Your task to perform on an android device: Add "lg ultragear" to the cart on costco.com, then select checkout. Image 0: 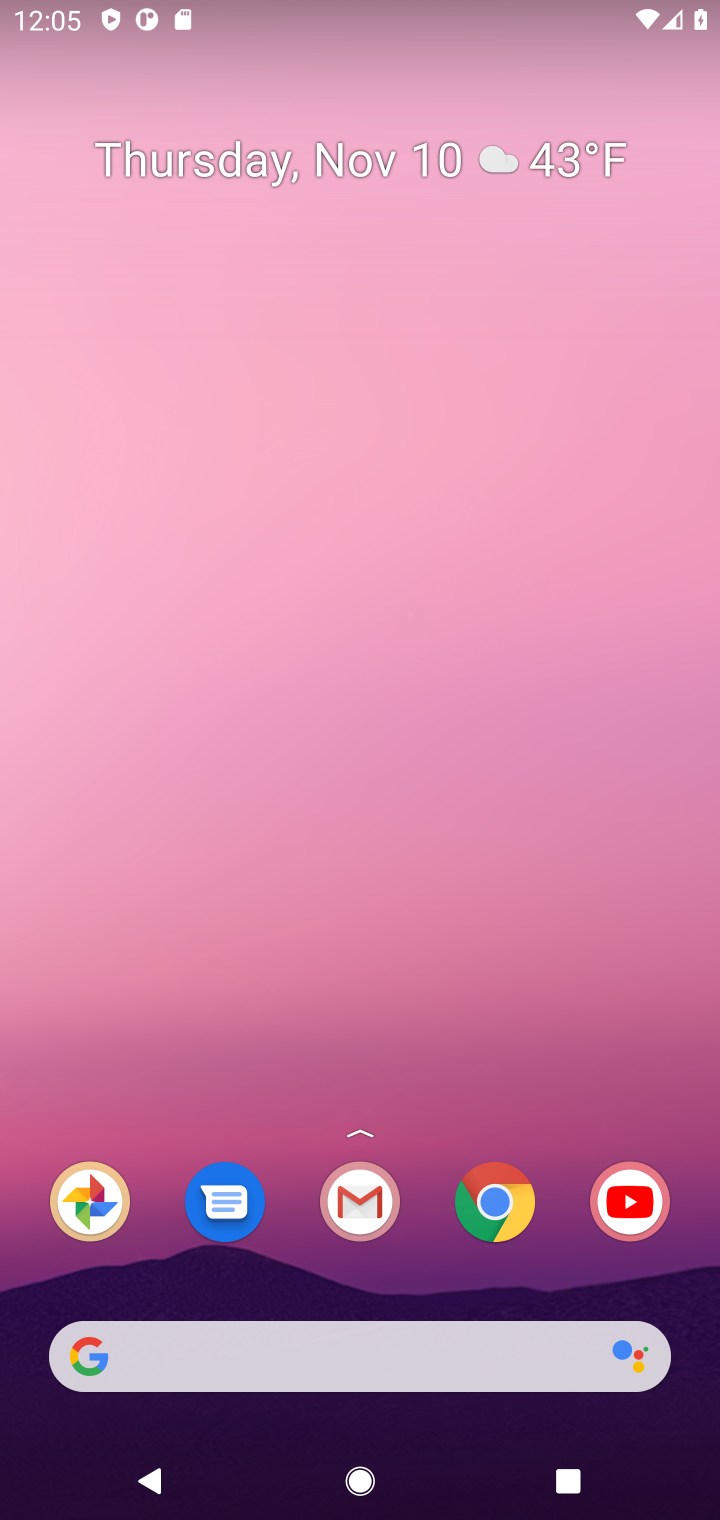
Step 0: click (505, 1211)
Your task to perform on an android device: Add "lg ultragear" to the cart on costco.com, then select checkout. Image 1: 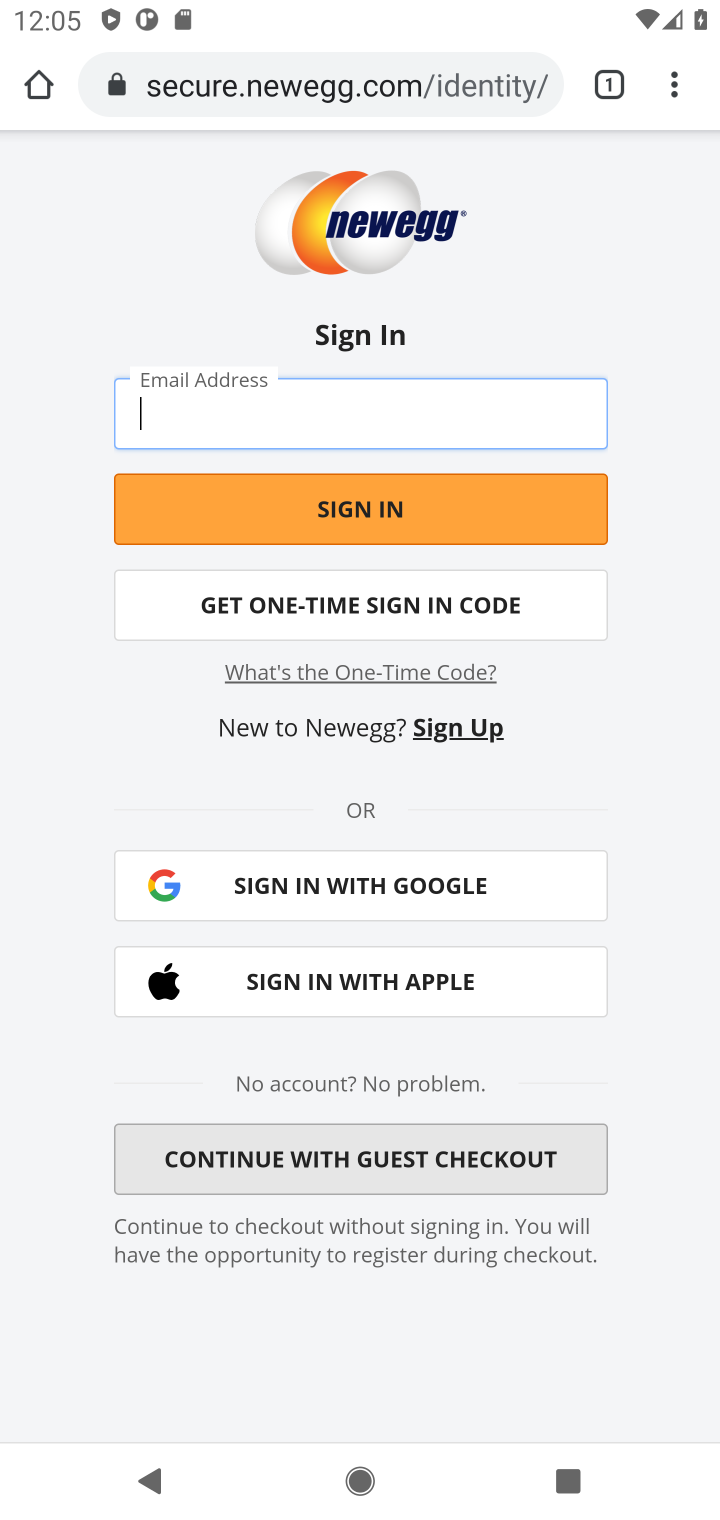
Step 1: click (356, 66)
Your task to perform on an android device: Add "lg ultragear" to the cart on costco.com, then select checkout. Image 2: 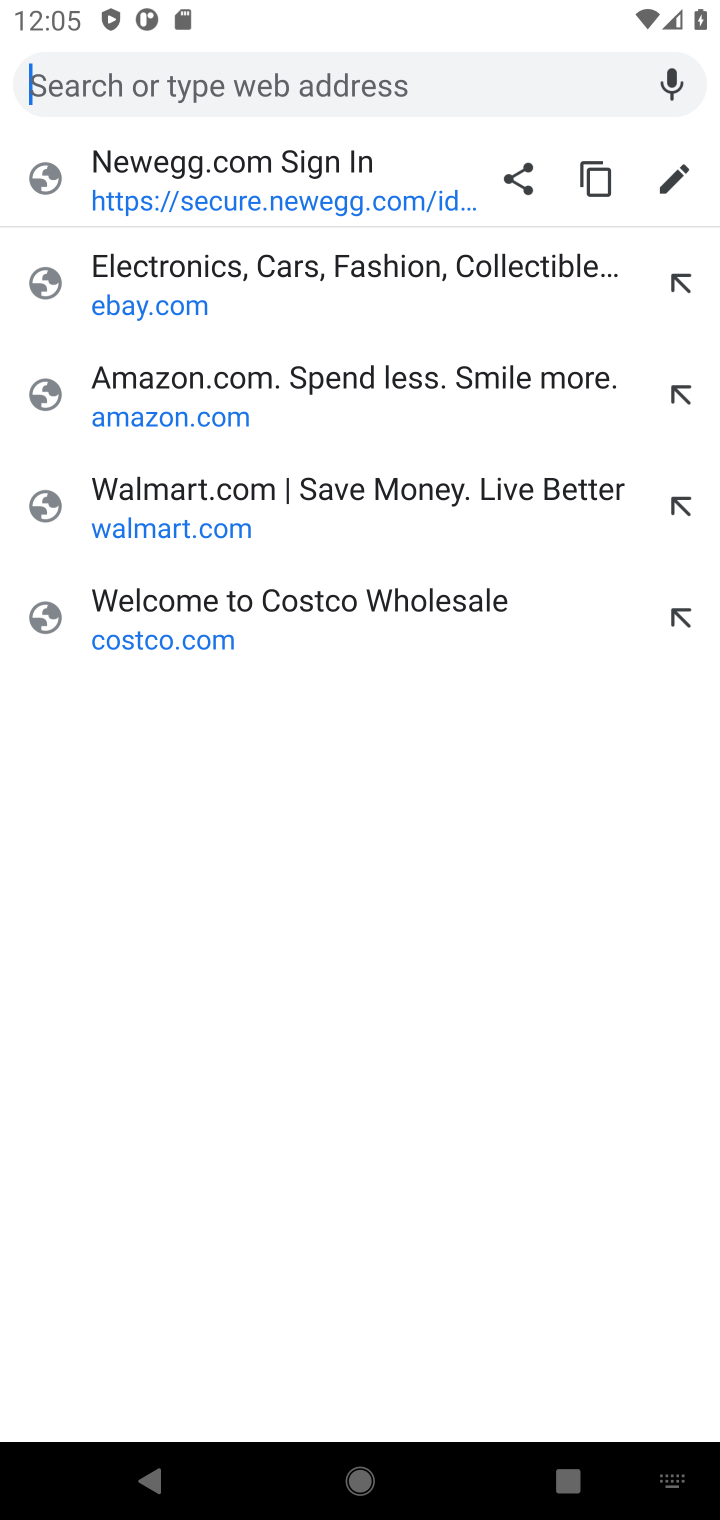
Step 2: type "costco.com"
Your task to perform on an android device: Add "lg ultragear" to the cart on costco.com, then select checkout. Image 3: 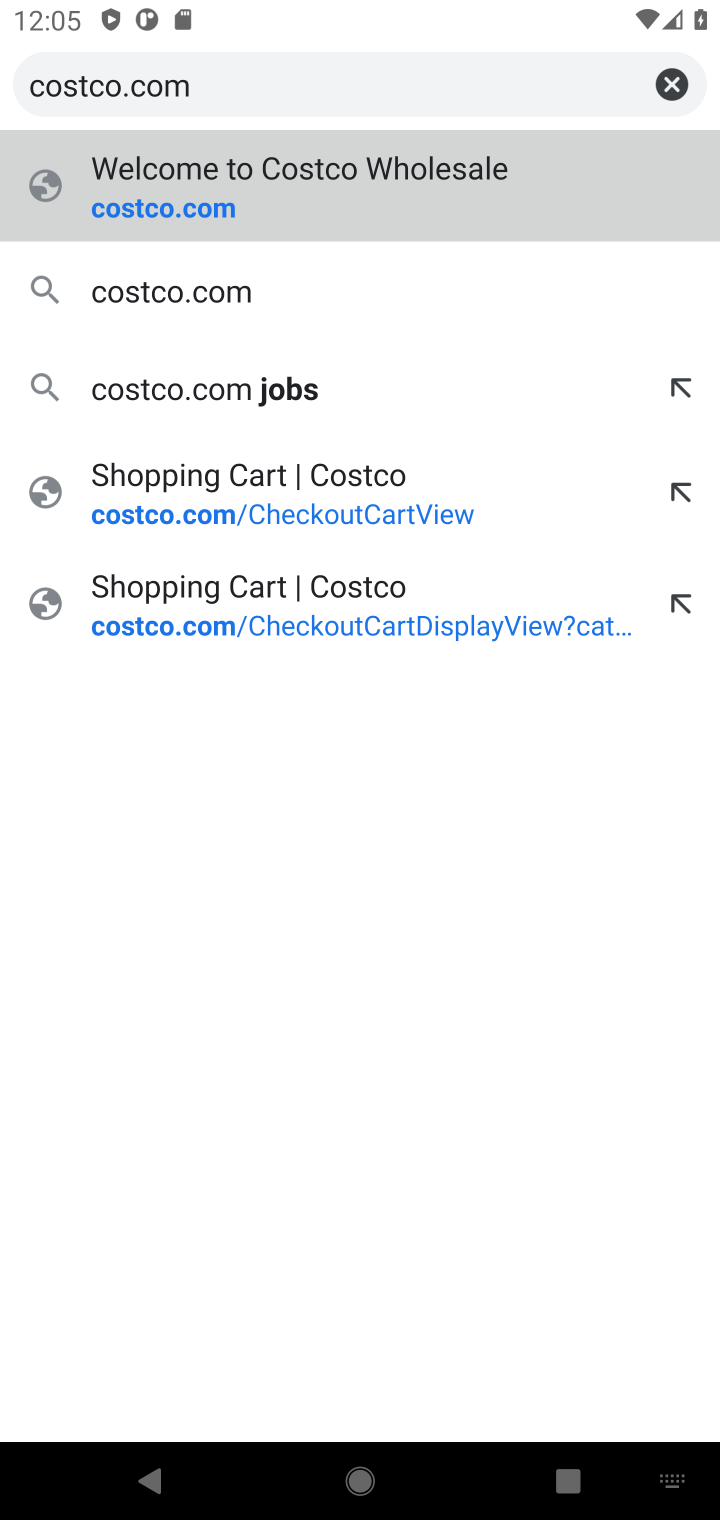
Step 3: press enter
Your task to perform on an android device: Add "lg ultragear" to the cart on costco.com, then select checkout. Image 4: 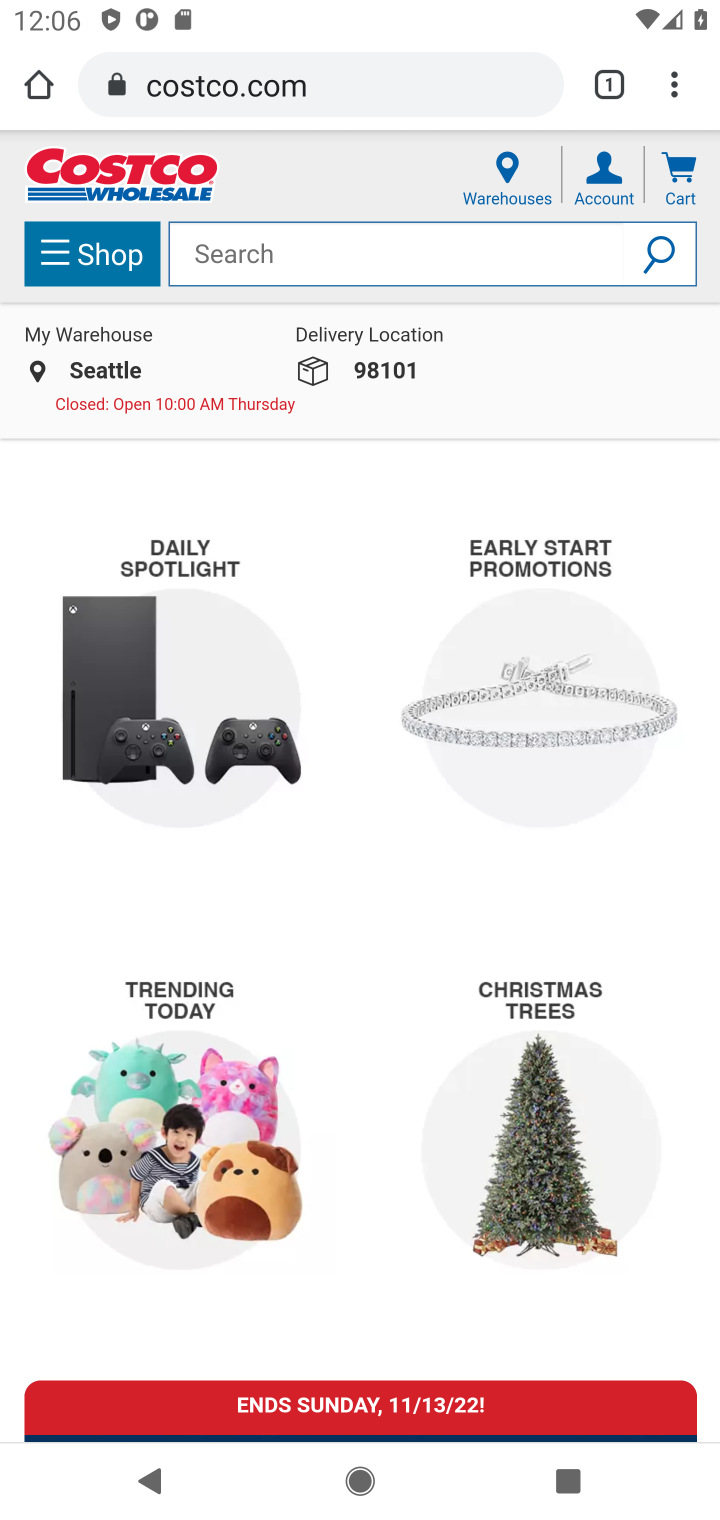
Step 4: click (445, 247)
Your task to perform on an android device: Add "lg ultragear" to the cart on costco.com, then select checkout. Image 5: 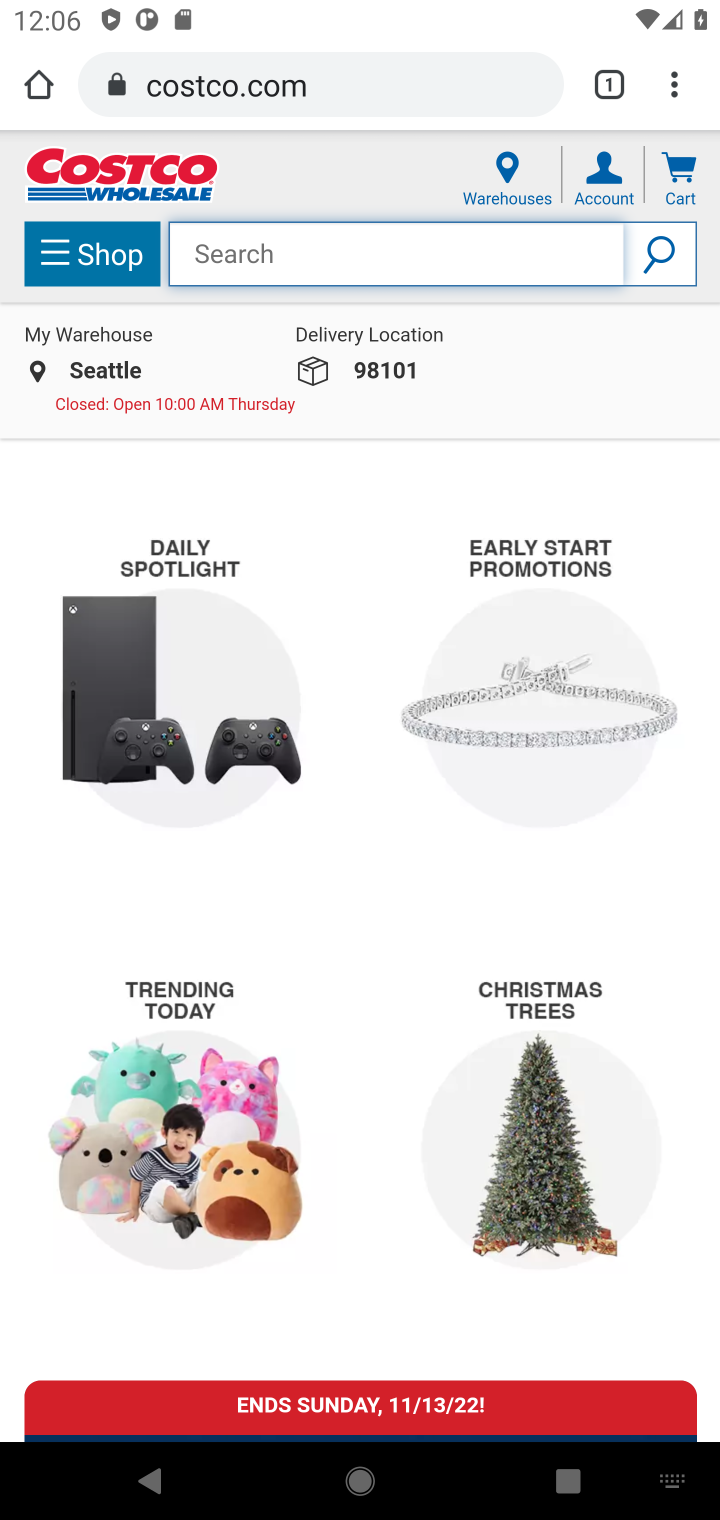
Step 5: type "lg ultragear"
Your task to perform on an android device: Add "lg ultragear" to the cart on costco.com, then select checkout. Image 6: 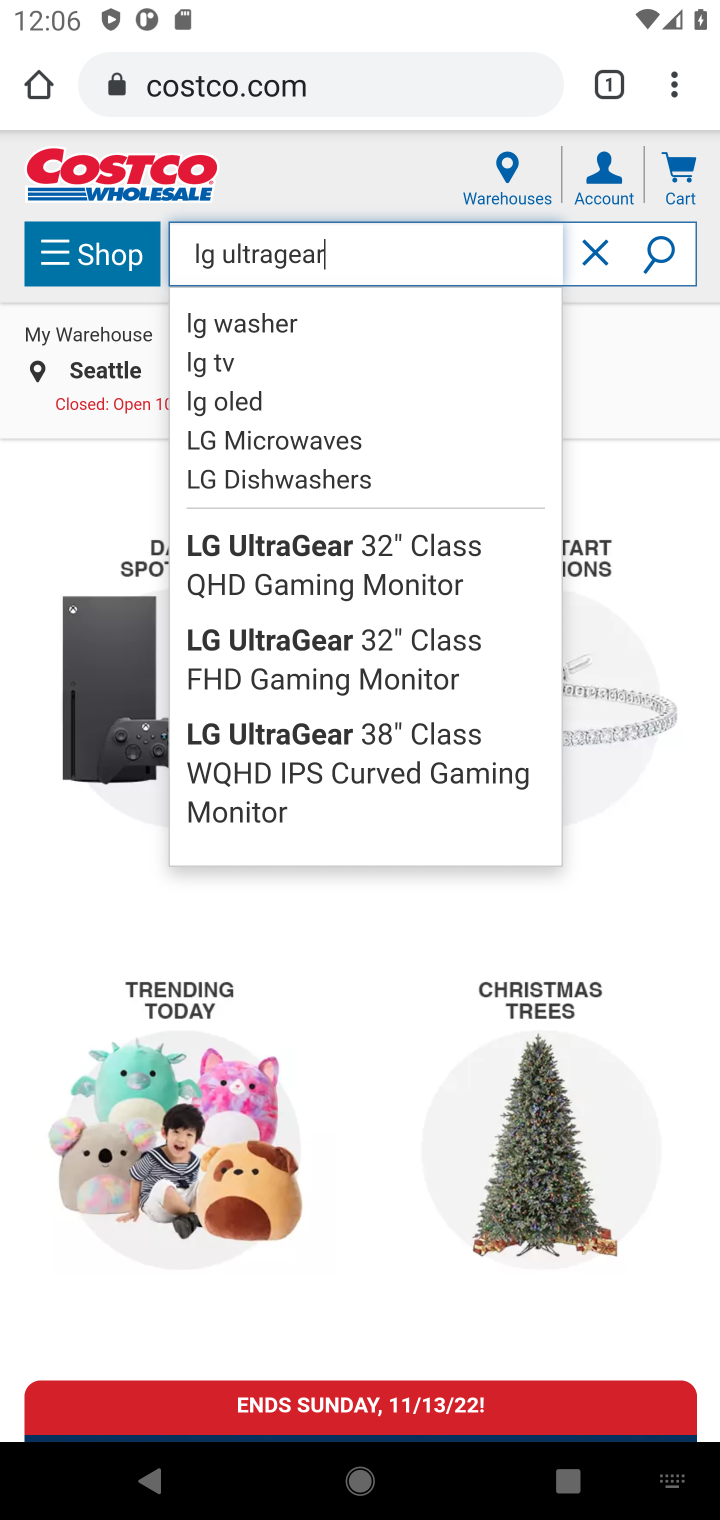
Step 6: press enter
Your task to perform on an android device: Add "lg ultragear" to the cart on costco.com, then select checkout. Image 7: 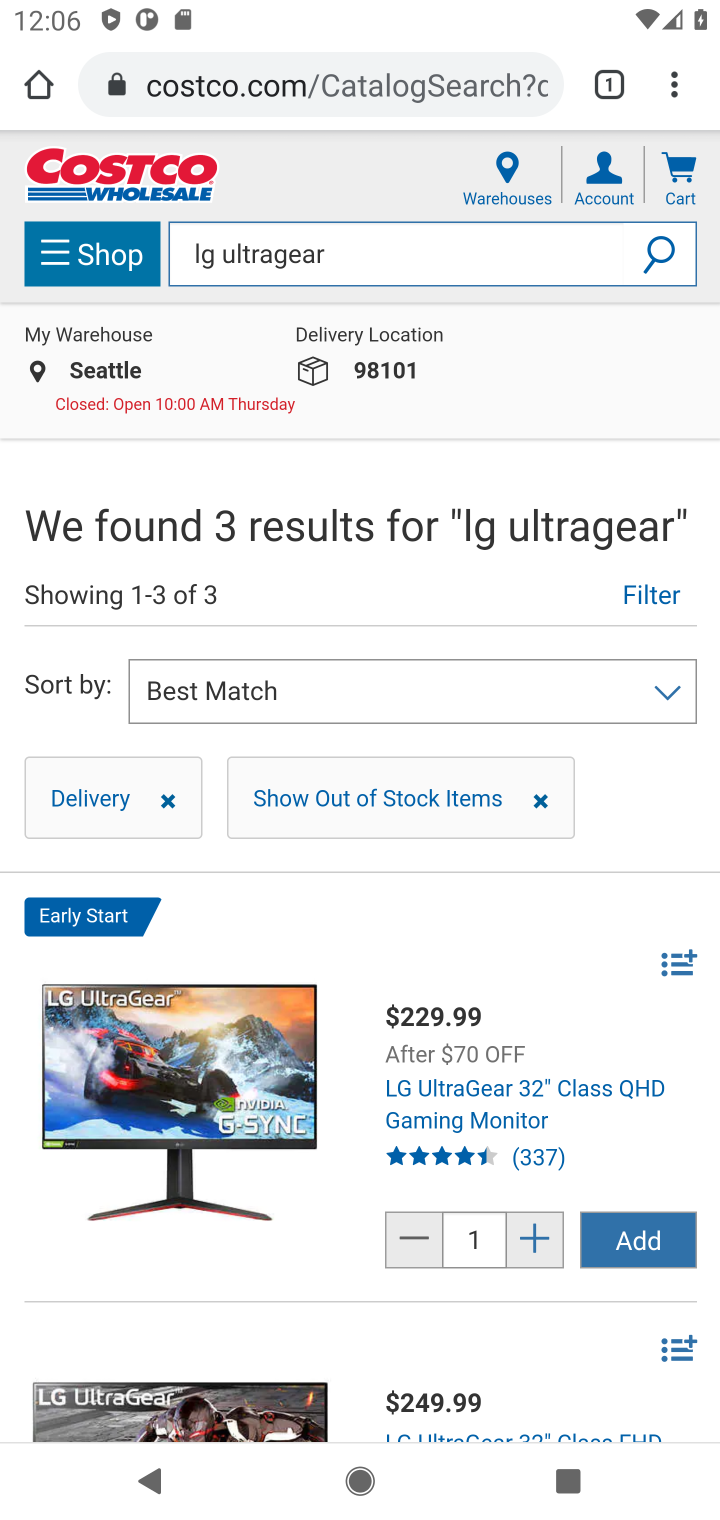
Step 7: click (259, 1053)
Your task to perform on an android device: Add "lg ultragear" to the cart on costco.com, then select checkout. Image 8: 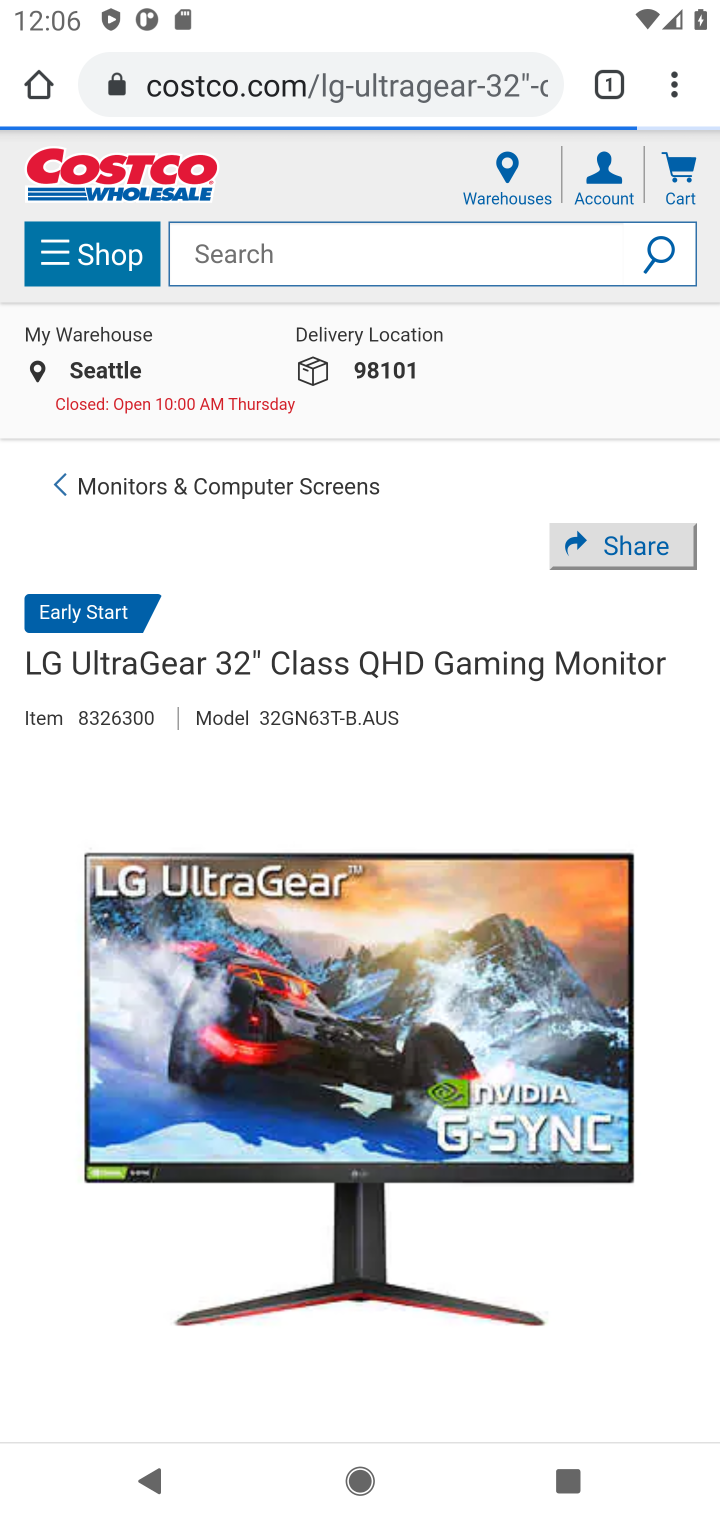
Step 8: drag from (558, 793) to (614, 387)
Your task to perform on an android device: Add "lg ultragear" to the cart on costco.com, then select checkout. Image 9: 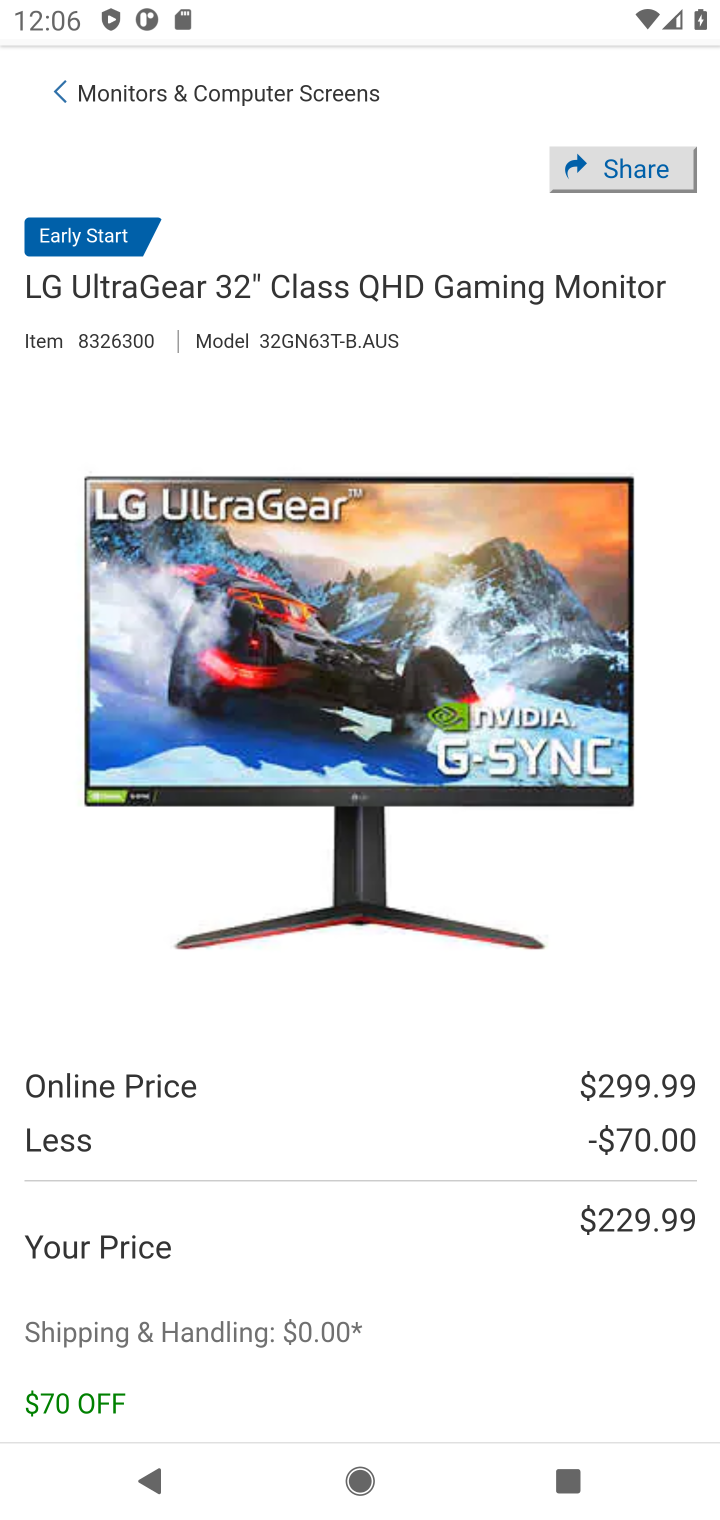
Step 9: drag from (600, 1286) to (515, 510)
Your task to perform on an android device: Add "lg ultragear" to the cart on costco.com, then select checkout. Image 10: 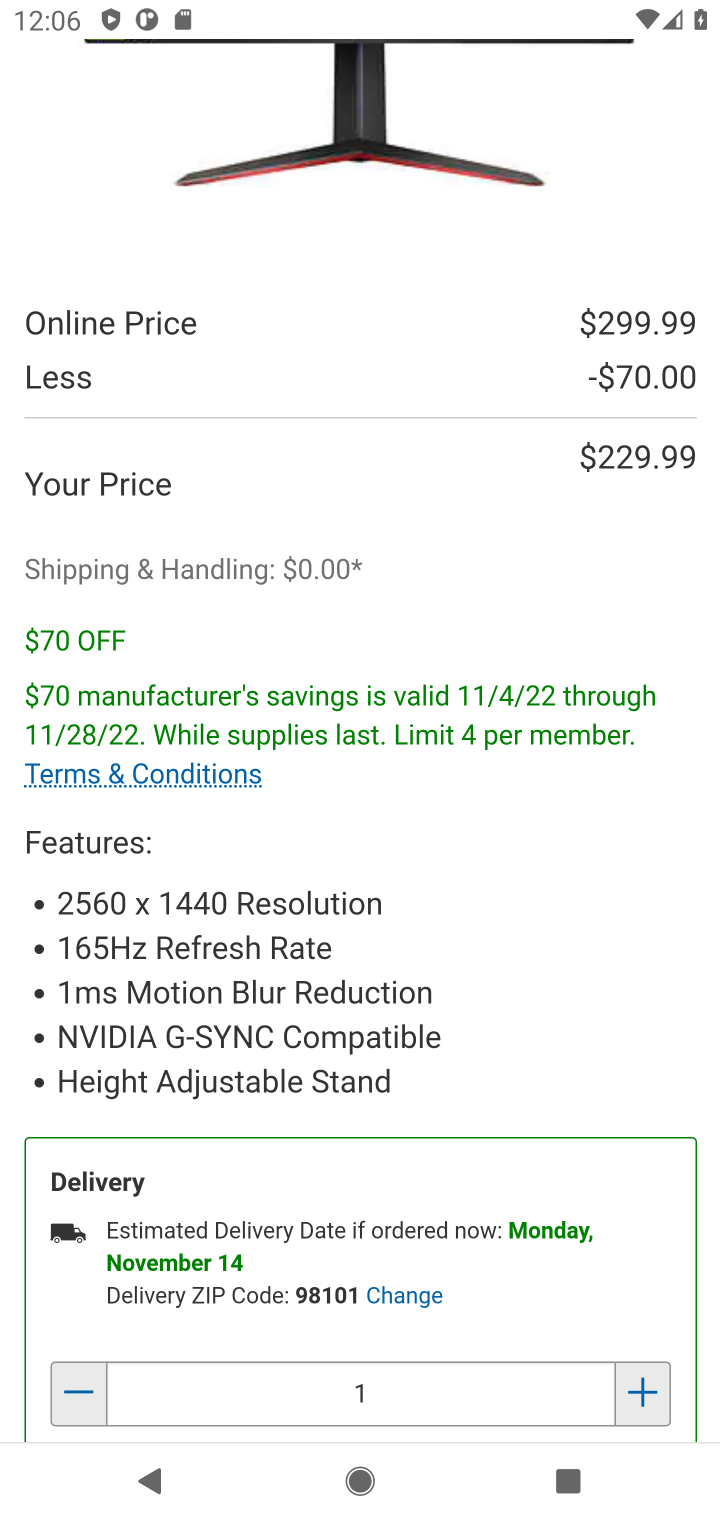
Step 10: drag from (578, 806) to (533, 338)
Your task to perform on an android device: Add "lg ultragear" to the cart on costco.com, then select checkout. Image 11: 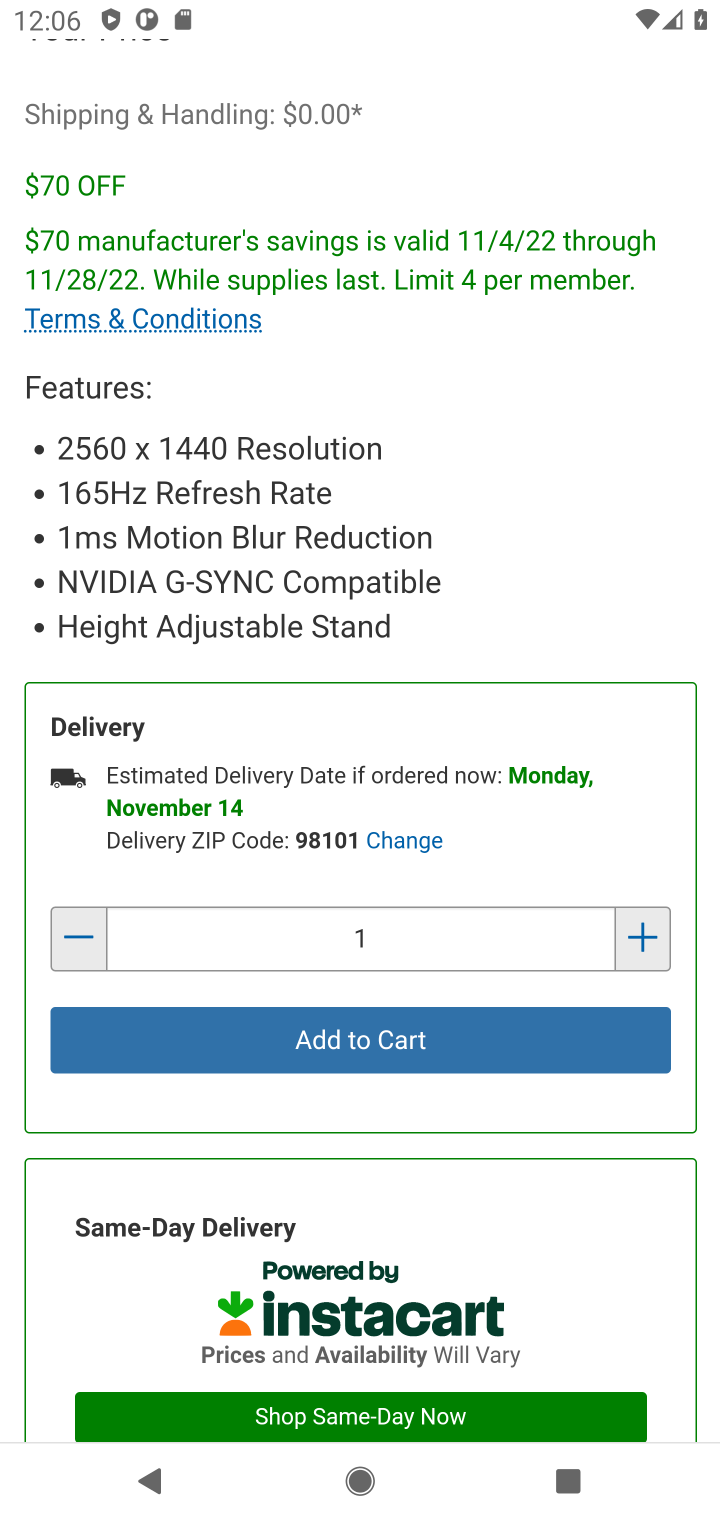
Step 11: click (357, 1032)
Your task to perform on an android device: Add "lg ultragear" to the cart on costco.com, then select checkout. Image 12: 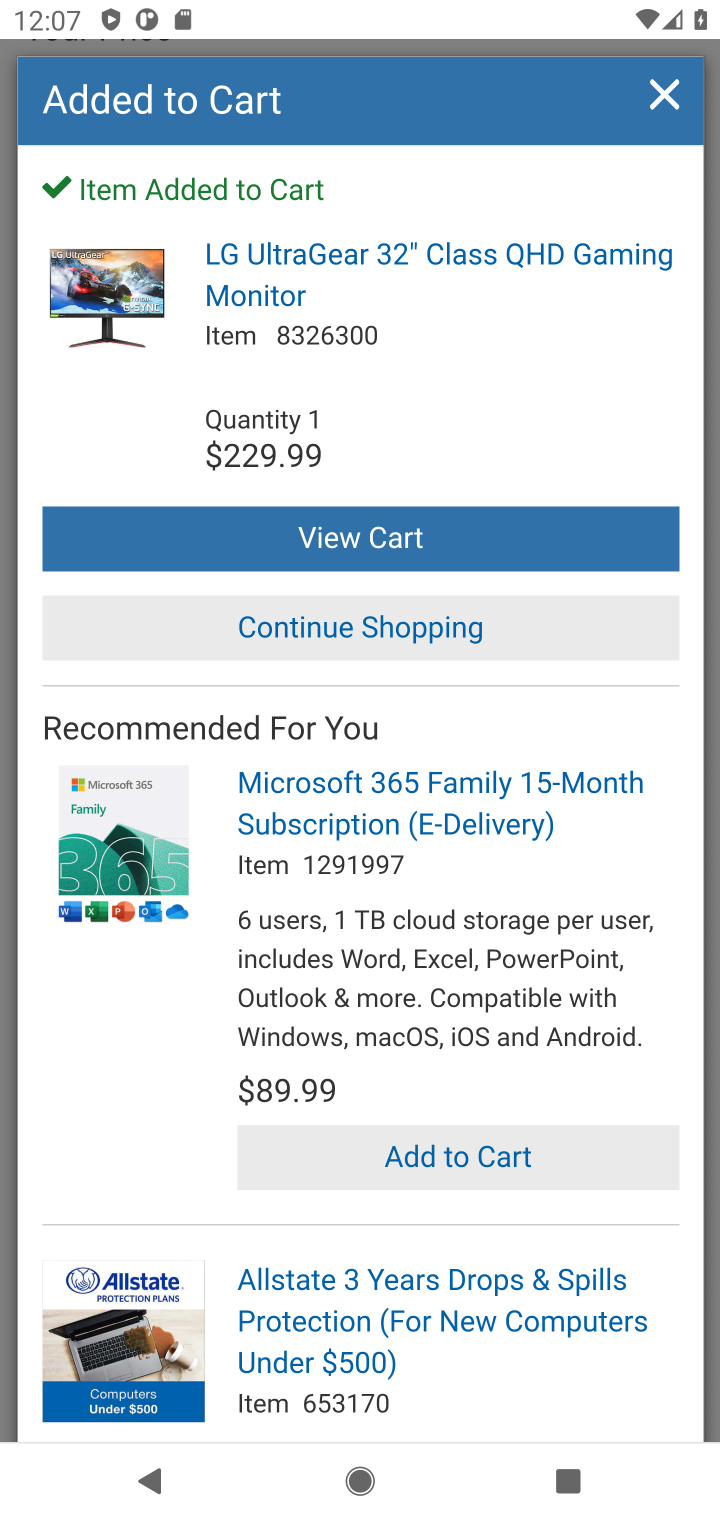
Step 12: click (322, 537)
Your task to perform on an android device: Add "lg ultragear" to the cart on costco.com, then select checkout. Image 13: 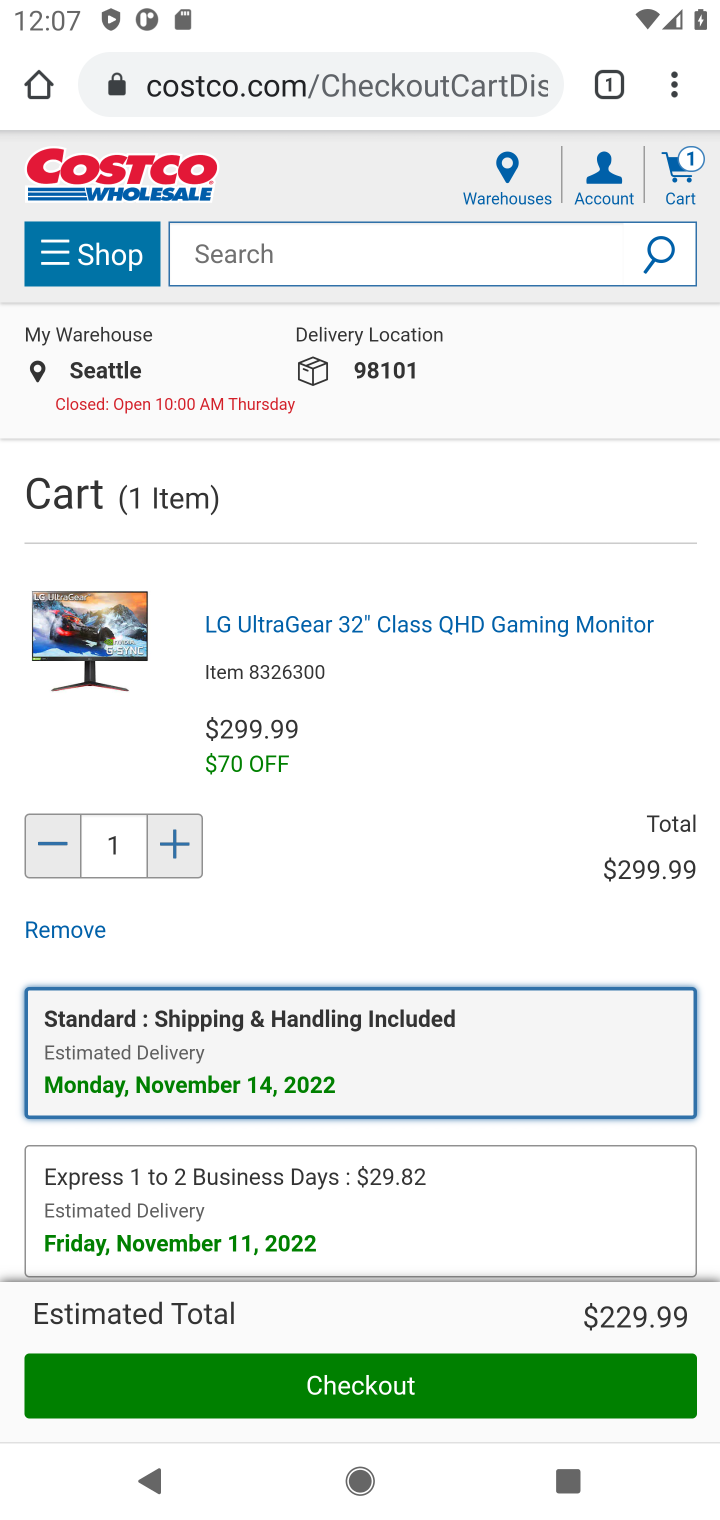
Step 13: click (394, 1381)
Your task to perform on an android device: Add "lg ultragear" to the cart on costco.com, then select checkout. Image 14: 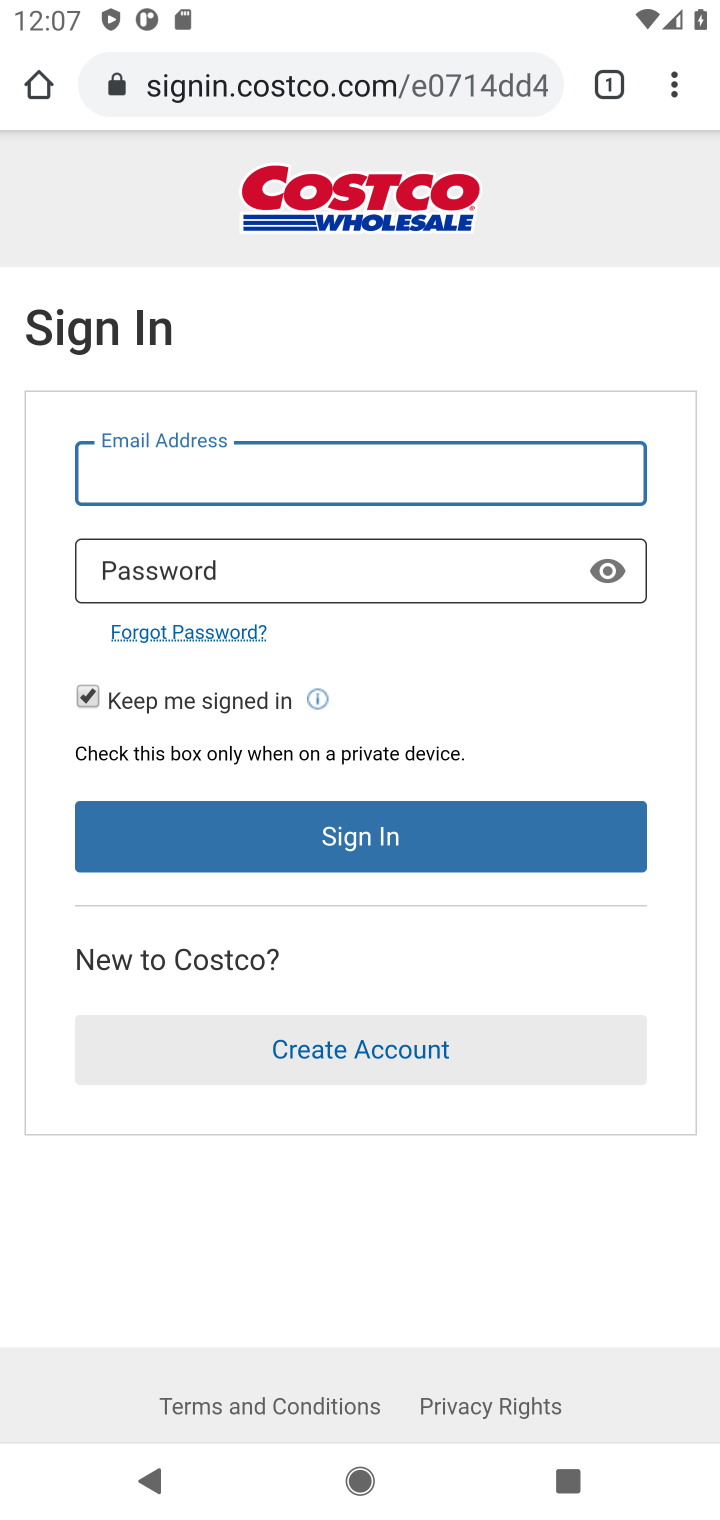
Step 14: task complete